Your task to perform on an android device: show emergency info Image 0: 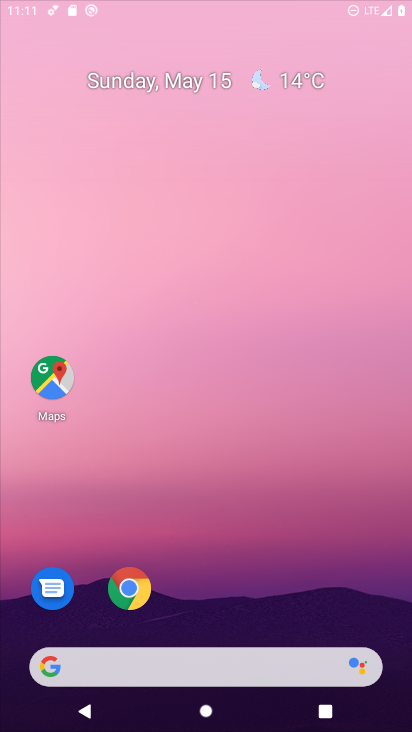
Step 0: drag from (252, 626) to (382, 0)
Your task to perform on an android device: show emergency info Image 1: 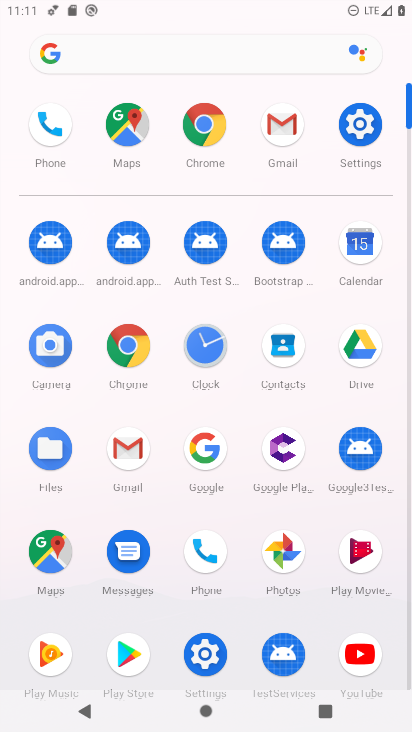
Step 1: click (213, 647)
Your task to perform on an android device: show emergency info Image 2: 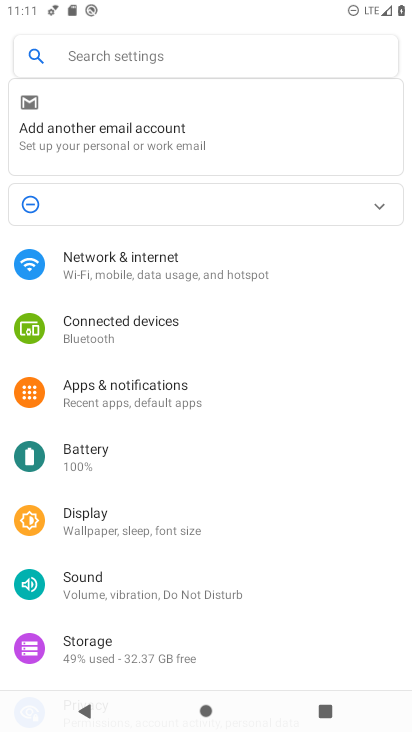
Step 2: drag from (134, 574) to (183, 274)
Your task to perform on an android device: show emergency info Image 3: 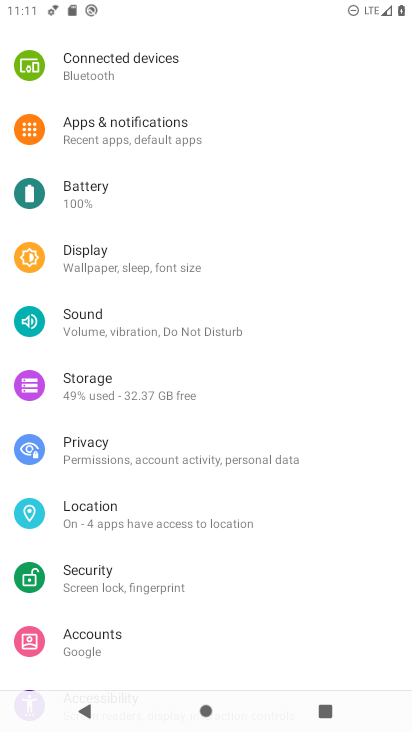
Step 3: drag from (156, 571) to (196, 38)
Your task to perform on an android device: show emergency info Image 4: 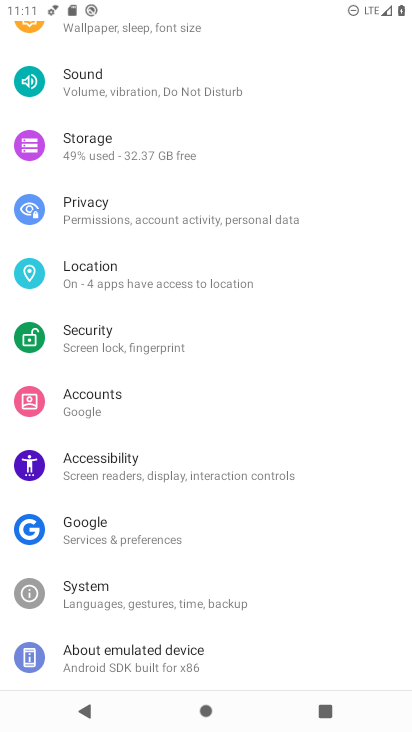
Step 4: click (104, 647)
Your task to perform on an android device: show emergency info Image 5: 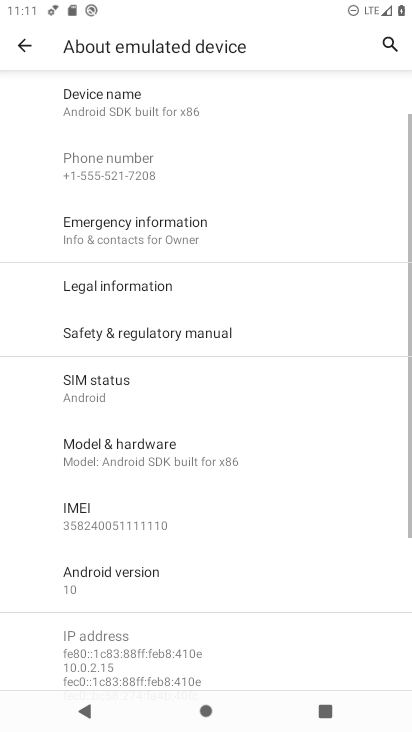
Step 5: click (154, 232)
Your task to perform on an android device: show emergency info Image 6: 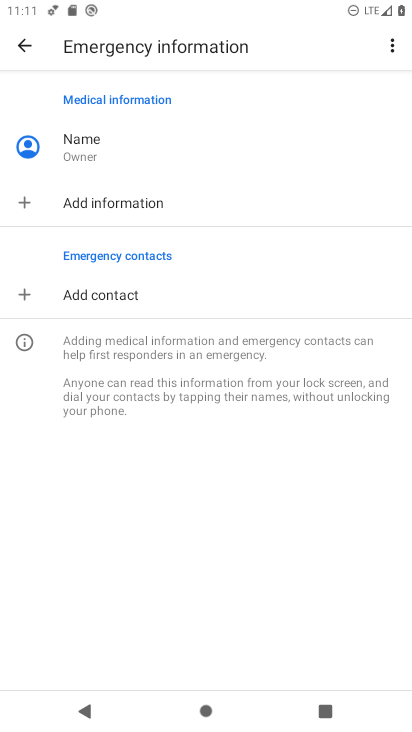
Step 6: task complete